Your task to perform on an android device: move a message to another label in the gmail app Image 0: 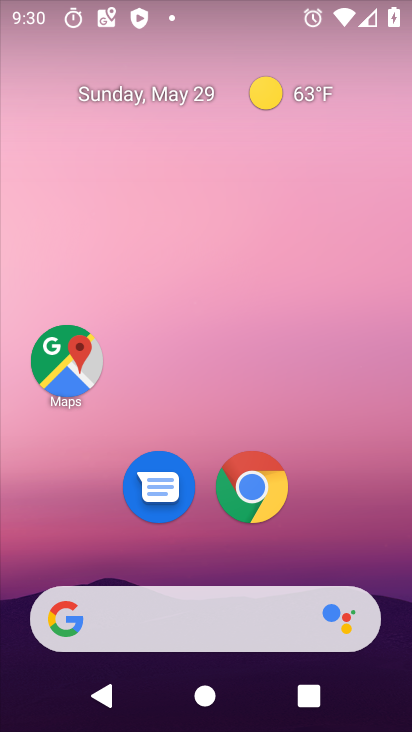
Step 0: drag from (324, 641) to (300, 362)
Your task to perform on an android device: move a message to another label in the gmail app Image 1: 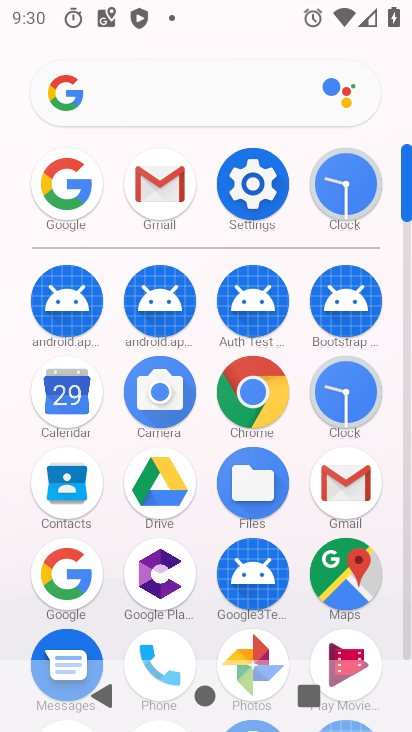
Step 1: click (347, 508)
Your task to perform on an android device: move a message to another label in the gmail app Image 2: 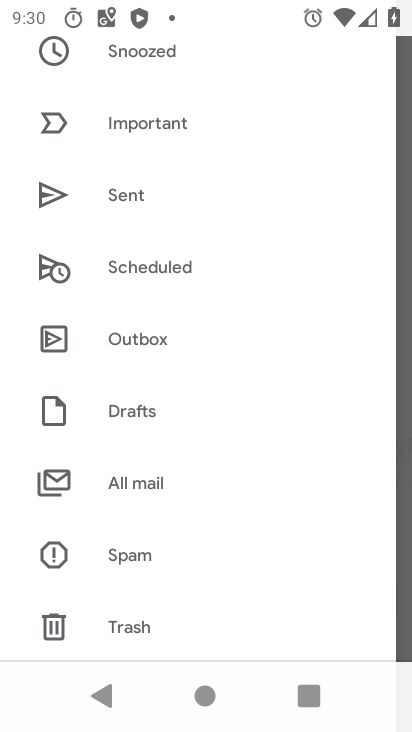
Step 2: drag from (301, 505) to (275, 265)
Your task to perform on an android device: move a message to another label in the gmail app Image 3: 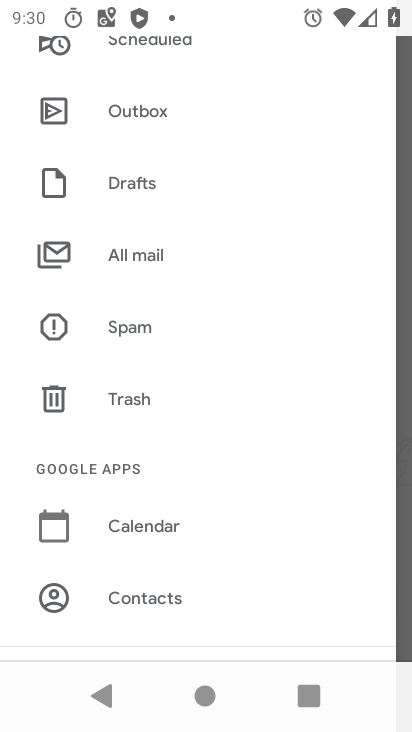
Step 3: drag from (239, 459) to (221, 276)
Your task to perform on an android device: move a message to another label in the gmail app Image 4: 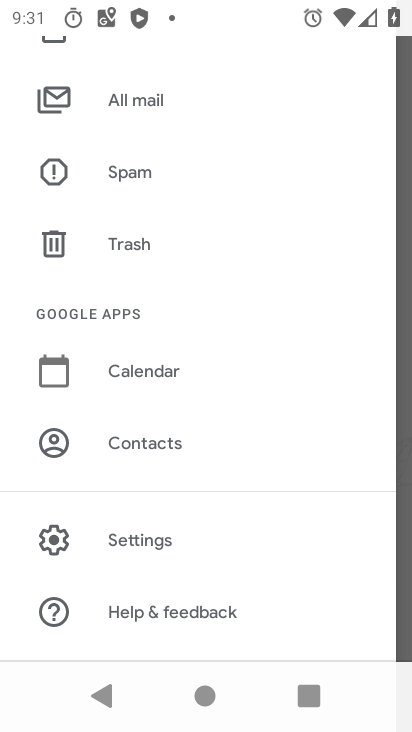
Step 4: click (194, 539)
Your task to perform on an android device: move a message to another label in the gmail app Image 5: 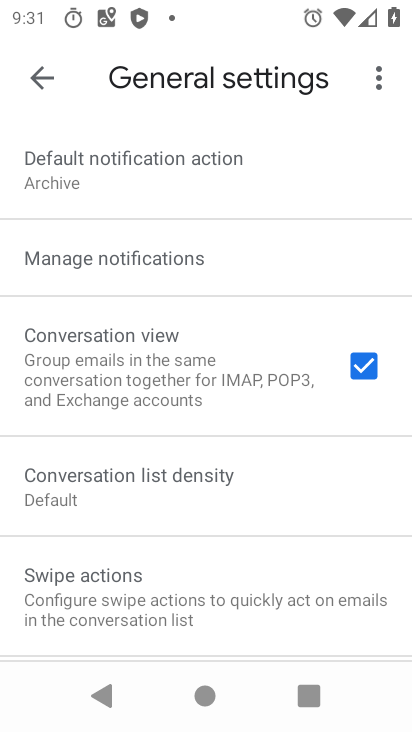
Step 5: task complete